Your task to perform on an android device: Open Android settings Image 0: 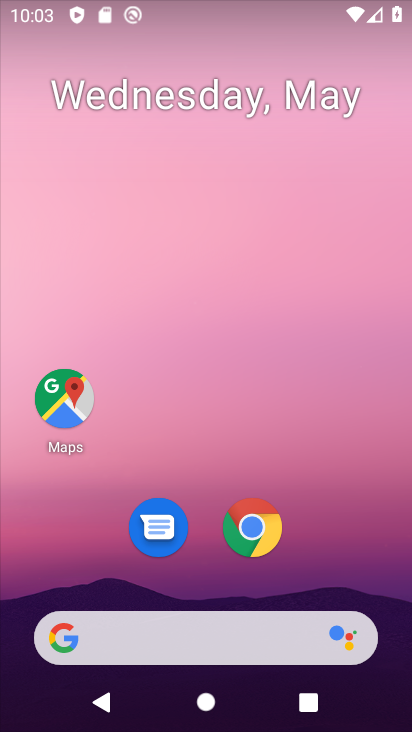
Step 0: drag from (229, 712) to (169, 16)
Your task to perform on an android device: Open Android settings Image 1: 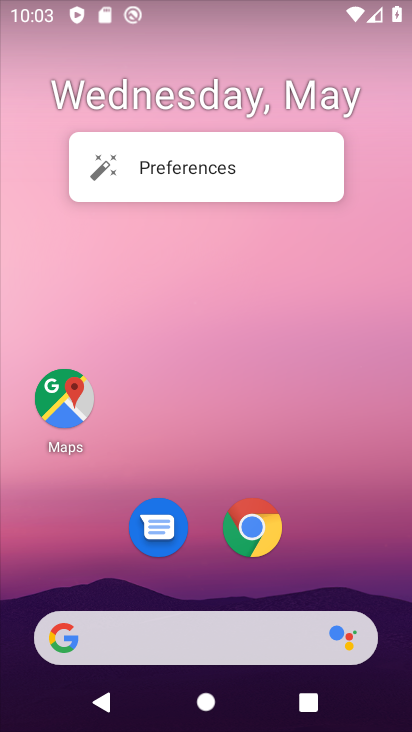
Step 1: click (98, 68)
Your task to perform on an android device: Open Android settings Image 2: 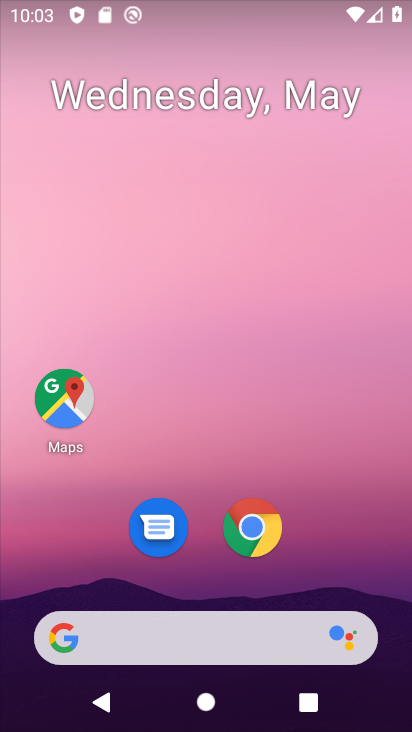
Step 2: drag from (306, 443) to (212, 152)
Your task to perform on an android device: Open Android settings Image 3: 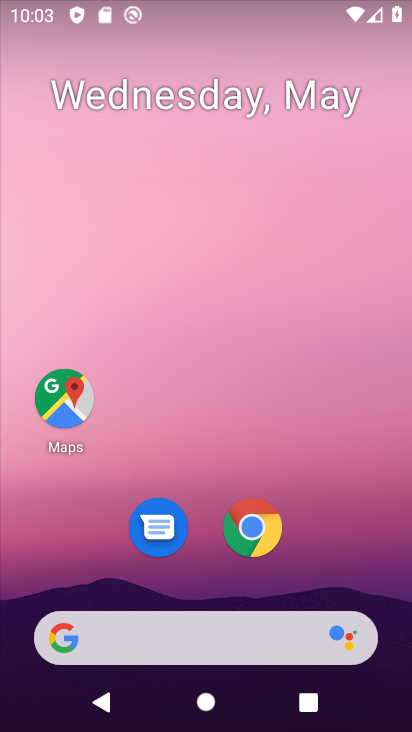
Step 3: drag from (282, 688) to (150, 95)
Your task to perform on an android device: Open Android settings Image 4: 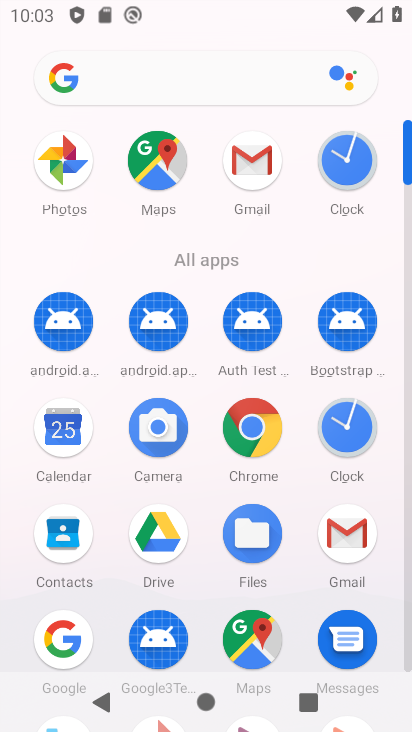
Step 4: drag from (235, 402) to (203, 86)
Your task to perform on an android device: Open Android settings Image 5: 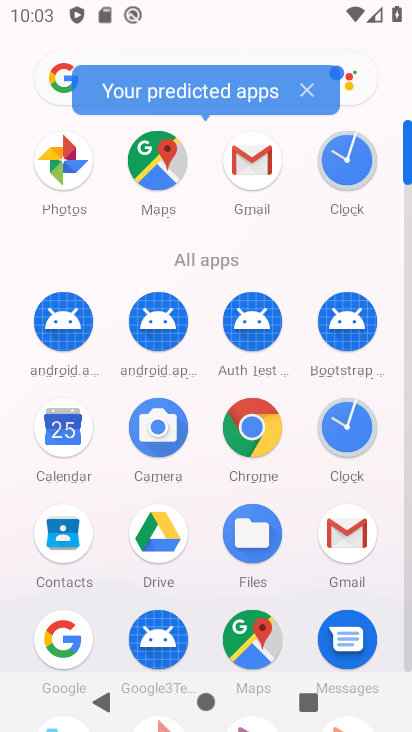
Step 5: drag from (222, 527) to (209, 114)
Your task to perform on an android device: Open Android settings Image 6: 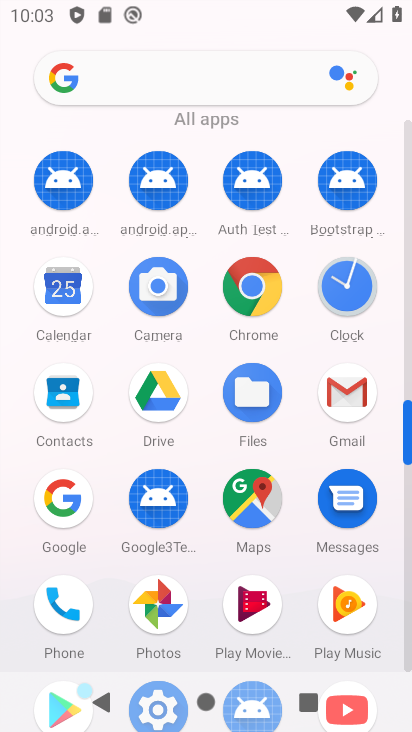
Step 6: click (208, 221)
Your task to perform on an android device: Open Android settings Image 7: 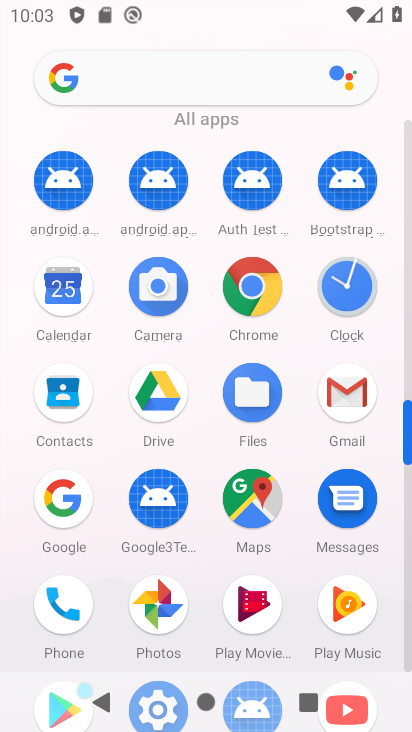
Step 7: drag from (221, 451) to (216, 137)
Your task to perform on an android device: Open Android settings Image 8: 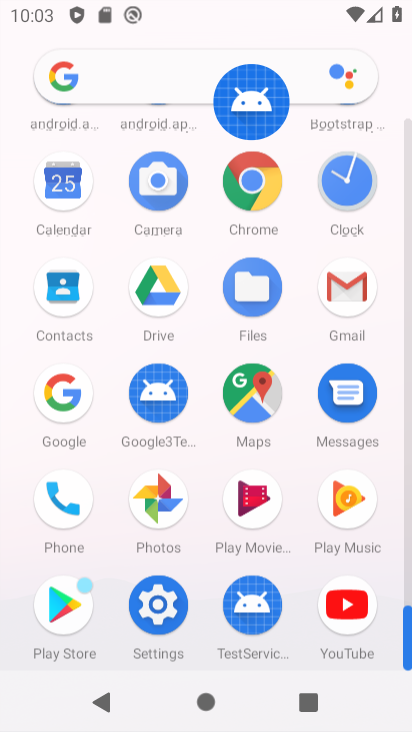
Step 8: drag from (177, 275) to (171, 177)
Your task to perform on an android device: Open Android settings Image 9: 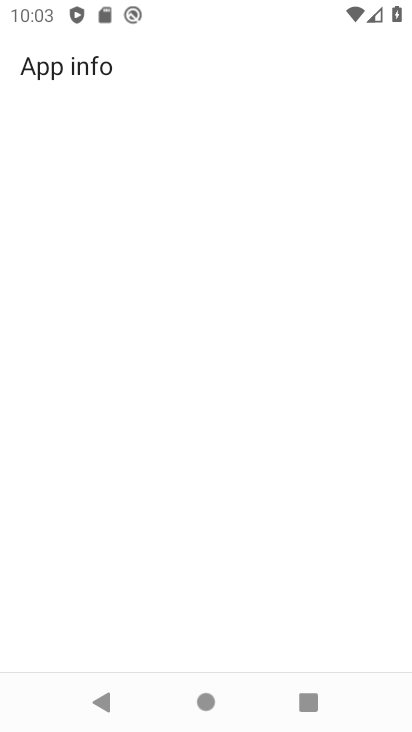
Step 9: press back button
Your task to perform on an android device: Open Android settings Image 10: 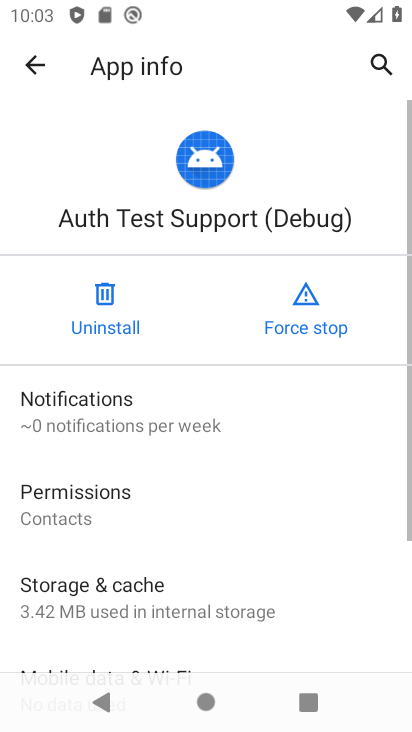
Step 10: press back button
Your task to perform on an android device: Open Android settings Image 11: 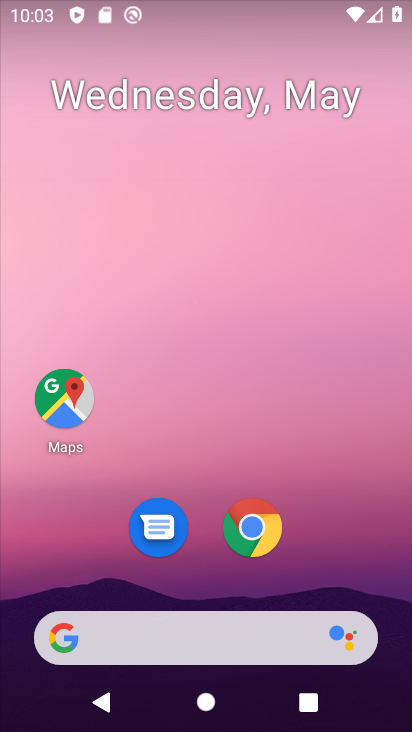
Step 11: drag from (198, 595) to (137, 204)
Your task to perform on an android device: Open Android settings Image 12: 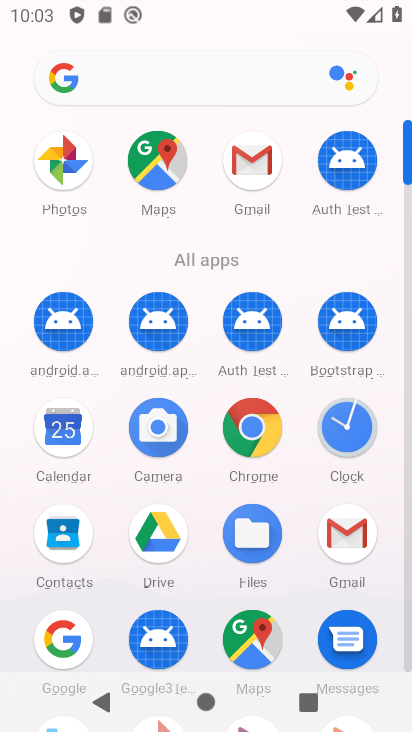
Step 12: drag from (210, 583) to (163, 260)
Your task to perform on an android device: Open Android settings Image 13: 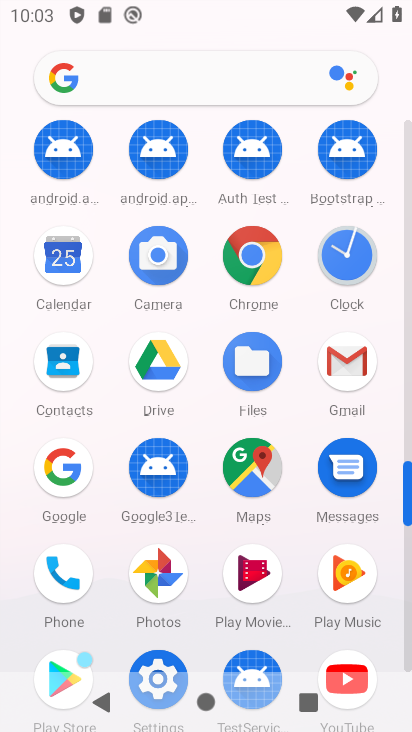
Step 13: drag from (199, 492) to (176, 71)
Your task to perform on an android device: Open Android settings Image 14: 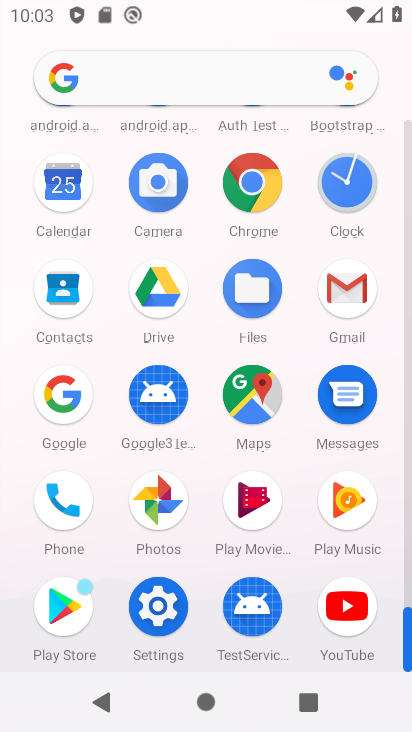
Step 14: click (159, 588)
Your task to perform on an android device: Open Android settings Image 15: 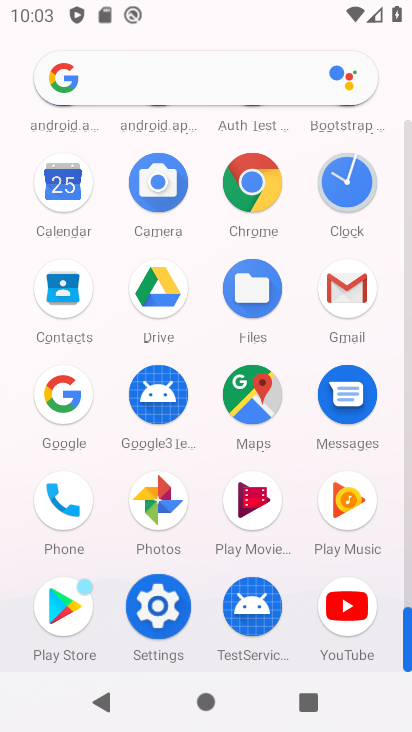
Step 15: click (159, 588)
Your task to perform on an android device: Open Android settings Image 16: 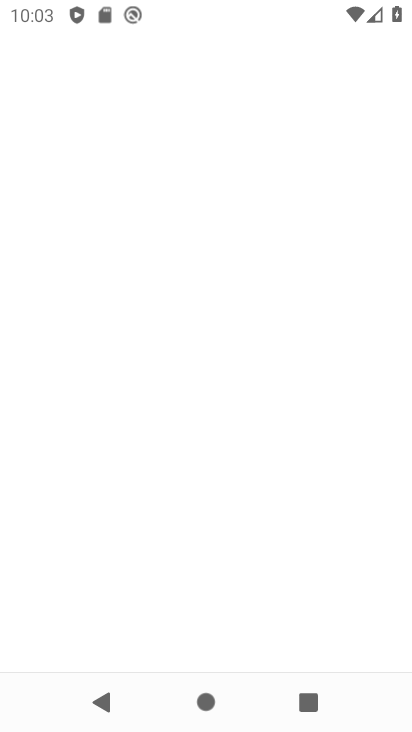
Step 16: click (164, 608)
Your task to perform on an android device: Open Android settings Image 17: 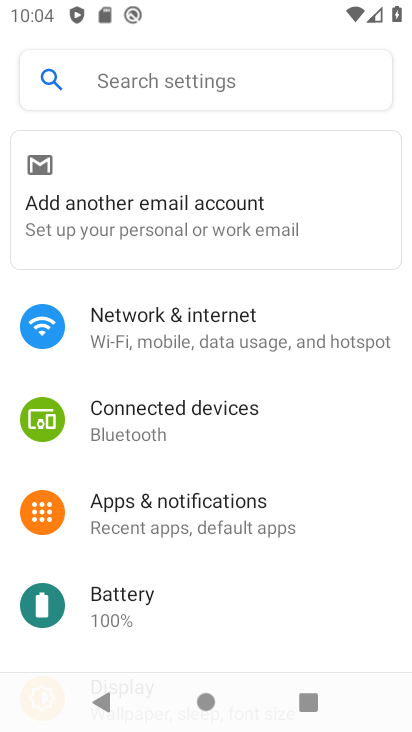
Step 17: drag from (146, 544) to (117, 167)
Your task to perform on an android device: Open Android settings Image 18: 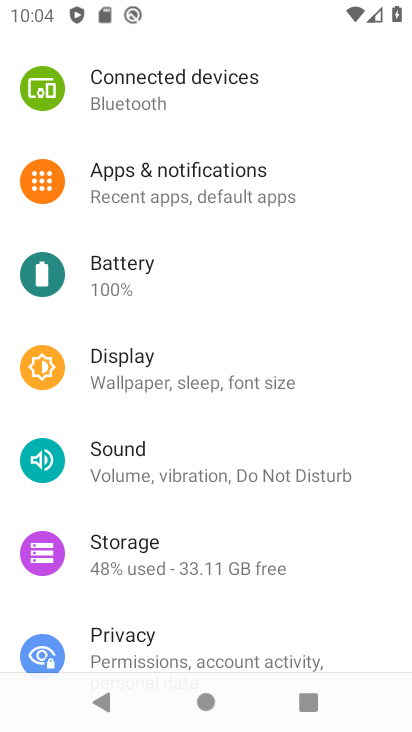
Step 18: drag from (181, 463) to (139, 219)
Your task to perform on an android device: Open Android settings Image 19: 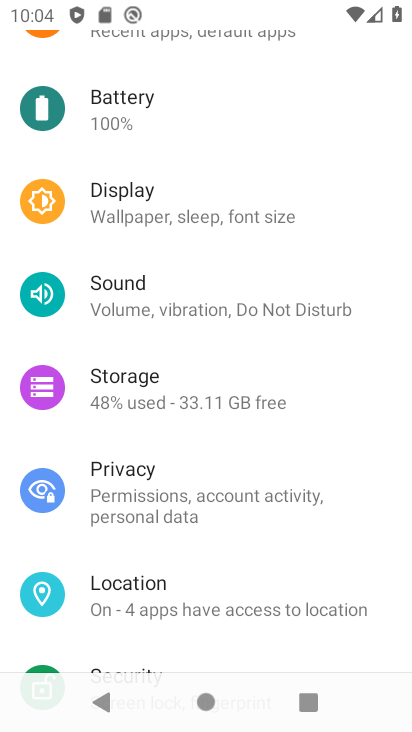
Step 19: drag from (155, 486) to (112, 331)
Your task to perform on an android device: Open Android settings Image 20: 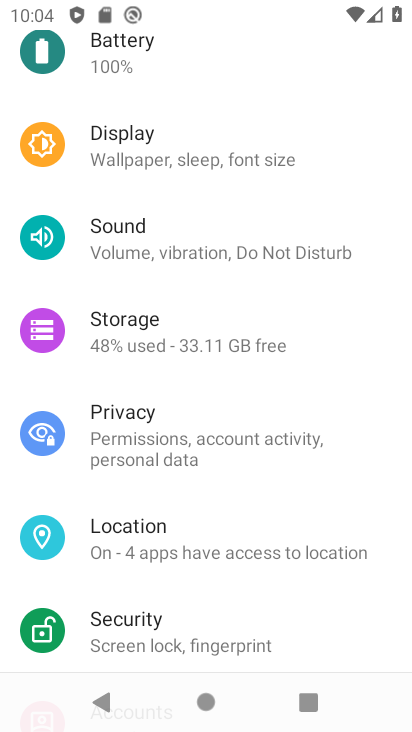
Step 20: drag from (187, 526) to (103, 215)
Your task to perform on an android device: Open Android settings Image 21: 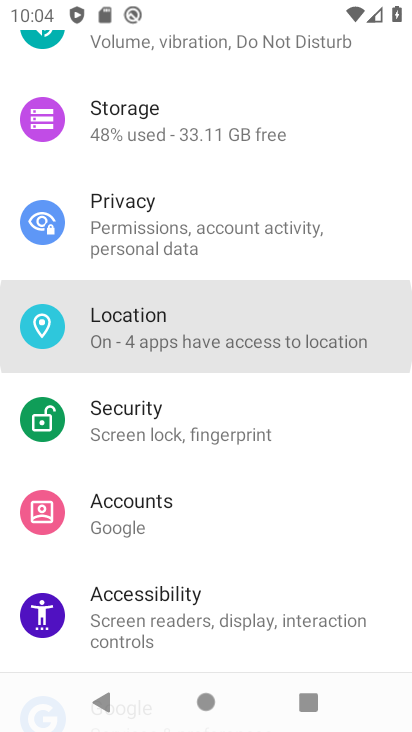
Step 21: drag from (180, 496) to (109, 142)
Your task to perform on an android device: Open Android settings Image 22: 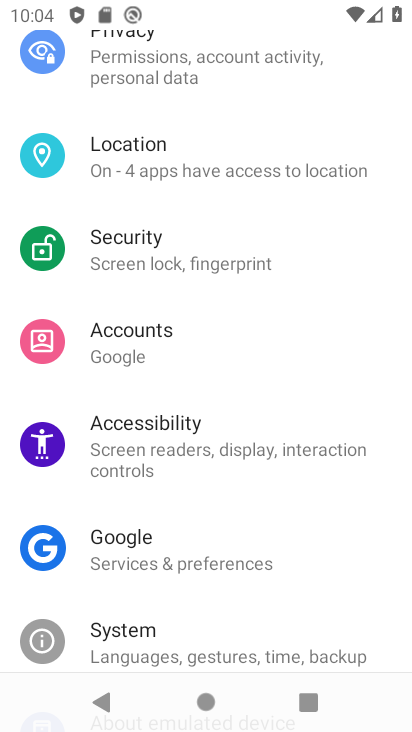
Step 22: drag from (176, 451) to (163, 228)
Your task to perform on an android device: Open Android settings Image 23: 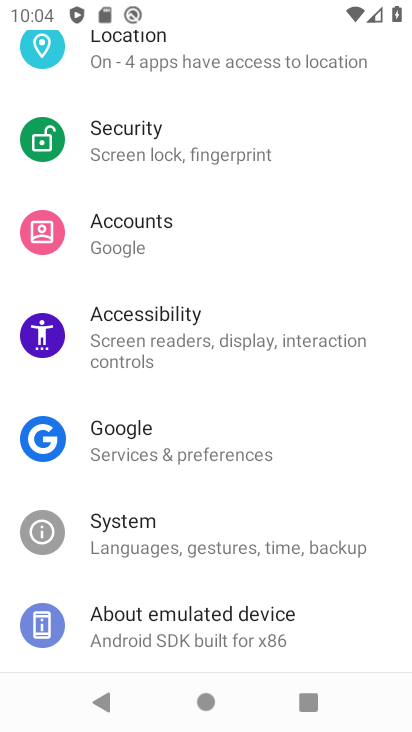
Step 23: press back button
Your task to perform on an android device: Open Android settings Image 24: 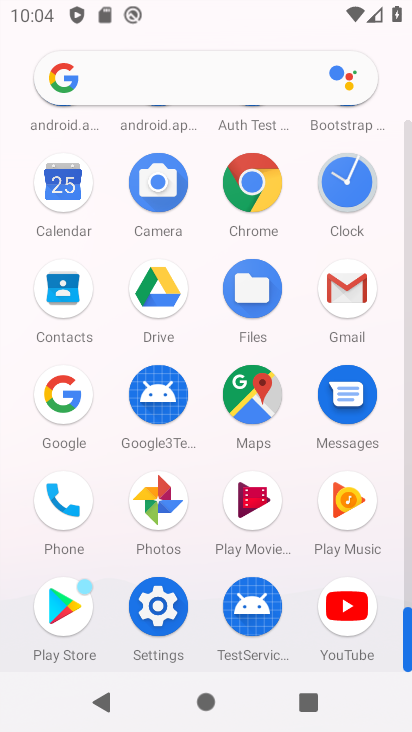
Step 24: drag from (219, 372) to (263, 685)
Your task to perform on an android device: Open Android settings Image 25: 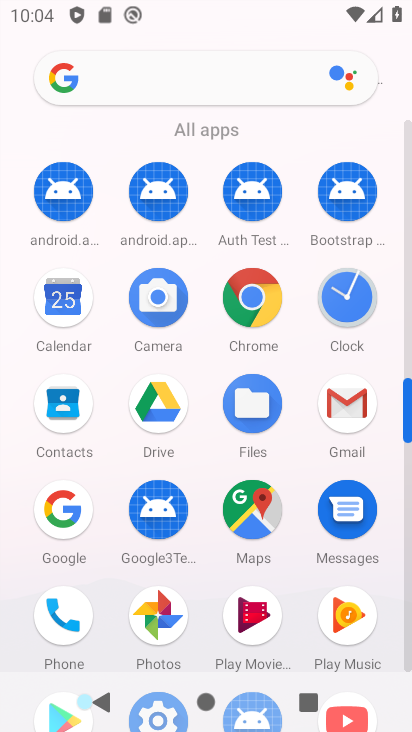
Step 25: click (155, 199)
Your task to perform on an android device: Open Android settings Image 26: 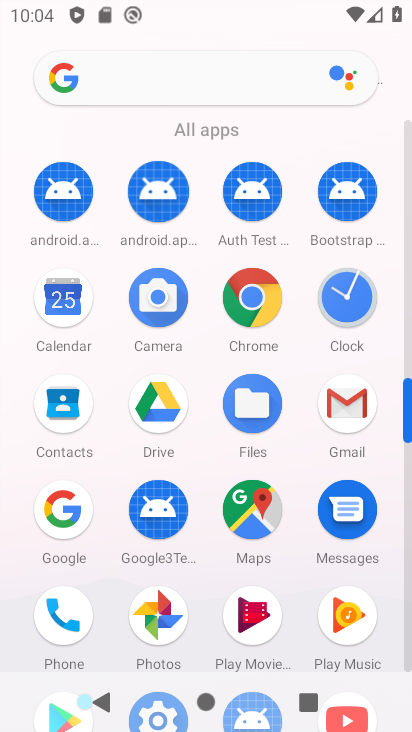
Step 26: click (155, 199)
Your task to perform on an android device: Open Android settings Image 27: 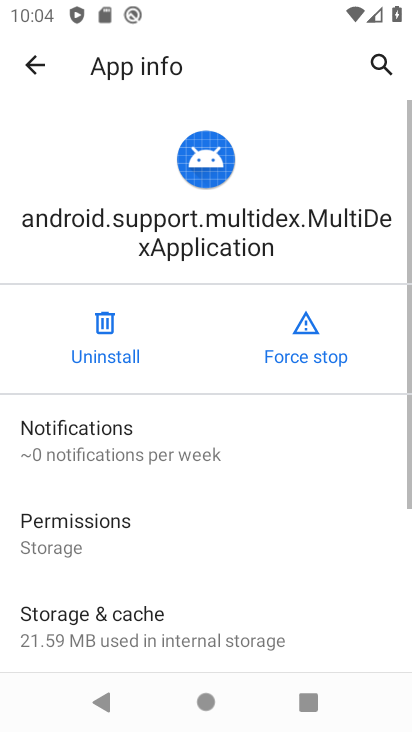
Step 27: task complete